Your task to perform on an android device: Go to Reddit.com Image 0: 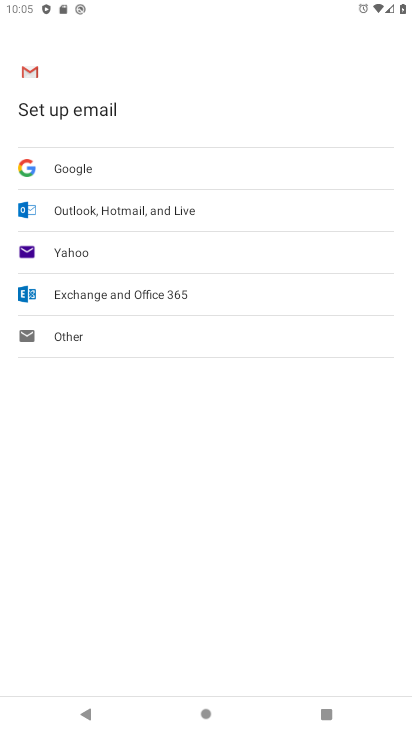
Step 0: press home button
Your task to perform on an android device: Go to Reddit.com Image 1: 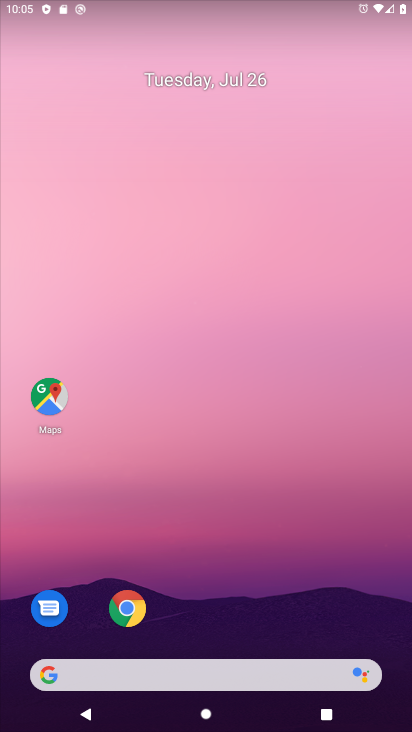
Step 1: click (128, 612)
Your task to perform on an android device: Go to Reddit.com Image 2: 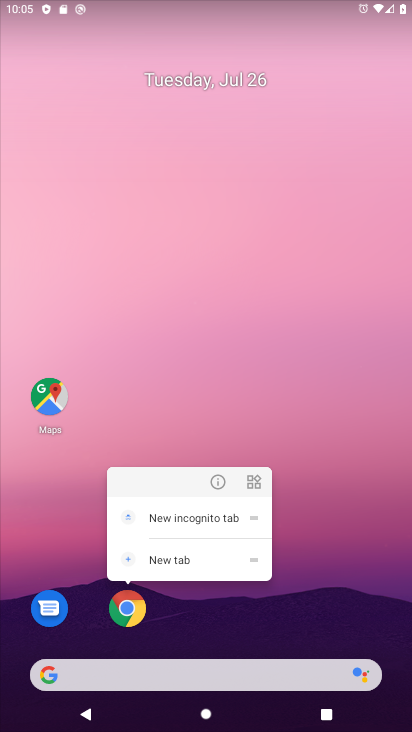
Step 2: click (124, 614)
Your task to perform on an android device: Go to Reddit.com Image 3: 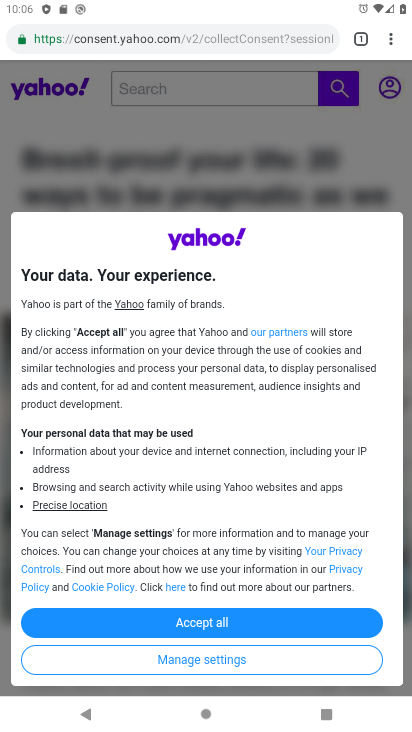
Step 3: click (388, 39)
Your task to perform on an android device: Go to Reddit.com Image 4: 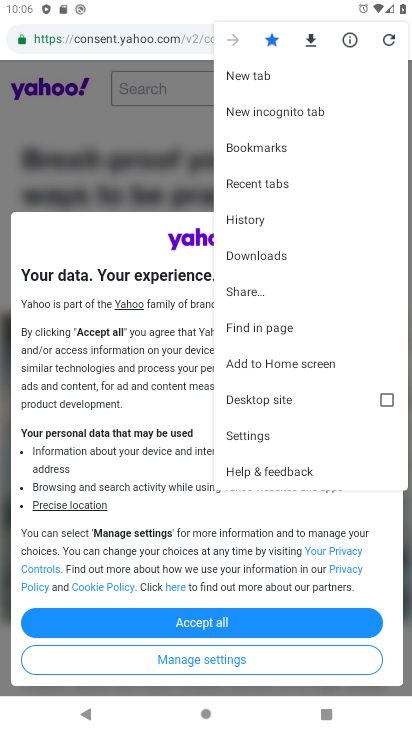
Step 4: click (246, 72)
Your task to perform on an android device: Go to Reddit.com Image 5: 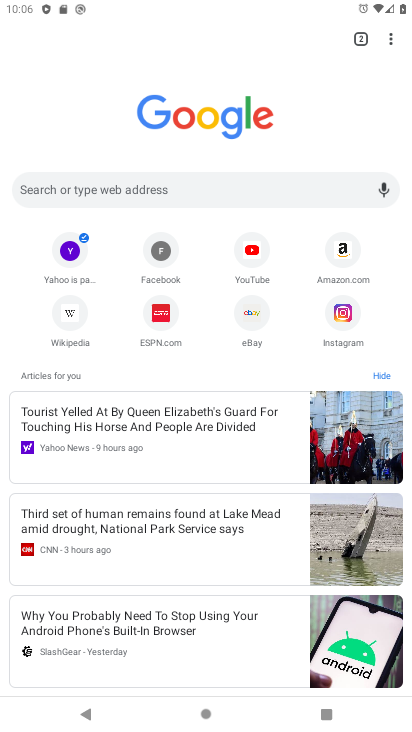
Step 5: click (237, 188)
Your task to perform on an android device: Go to Reddit.com Image 6: 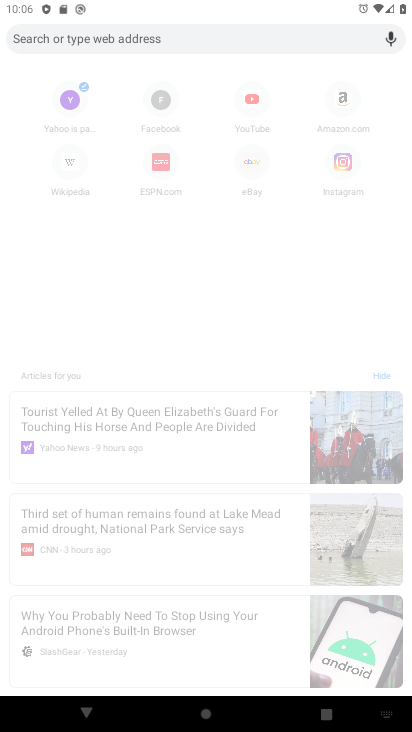
Step 6: type "Reddit.com"
Your task to perform on an android device: Go to Reddit.com Image 7: 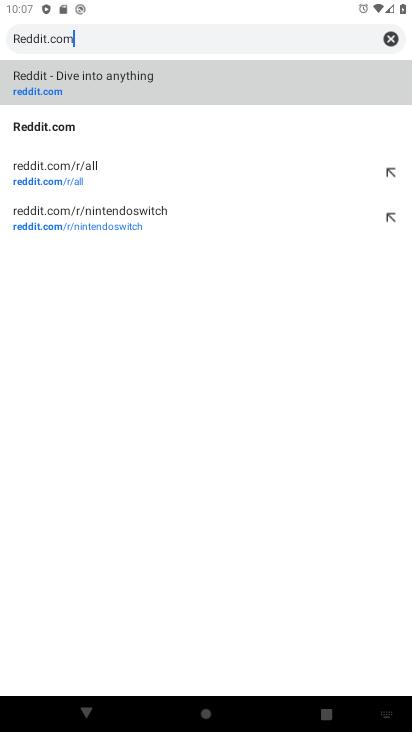
Step 7: click (58, 89)
Your task to perform on an android device: Go to Reddit.com Image 8: 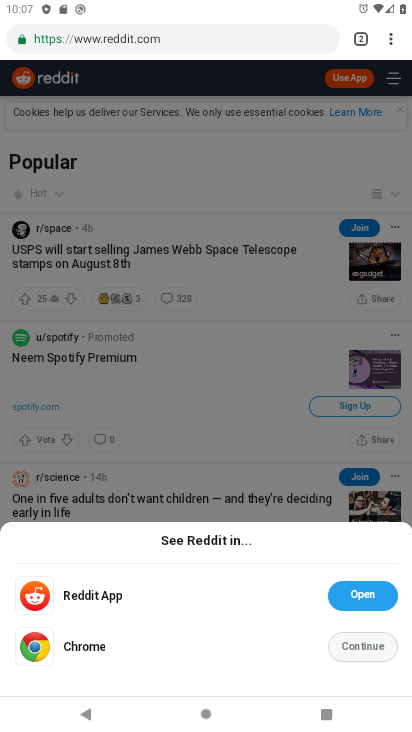
Step 8: task complete